Your task to perform on an android device: check google app version Image 0: 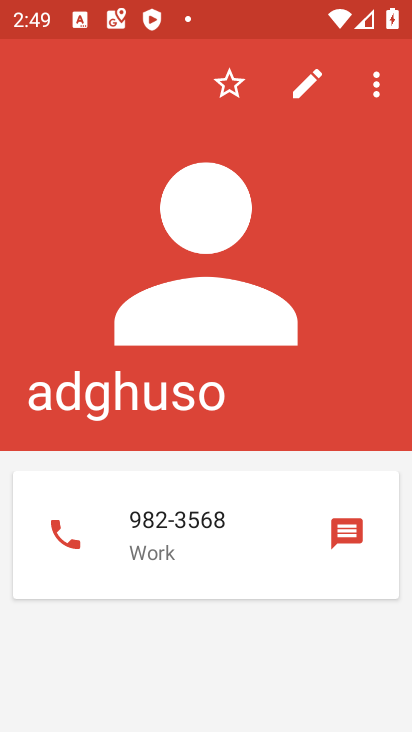
Step 0: press home button
Your task to perform on an android device: check google app version Image 1: 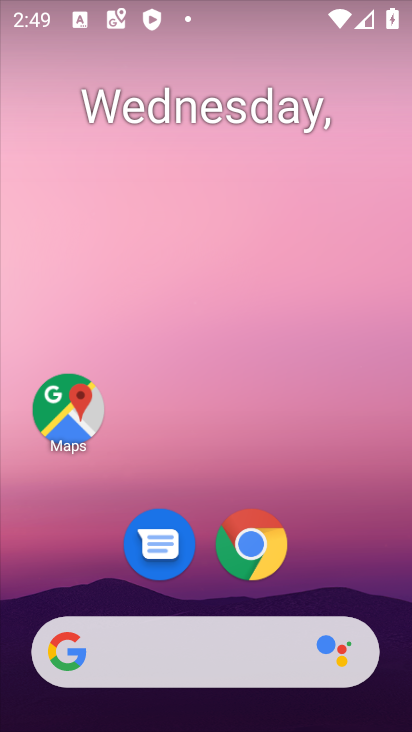
Step 1: click (252, 541)
Your task to perform on an android device: check google app version Image 2: 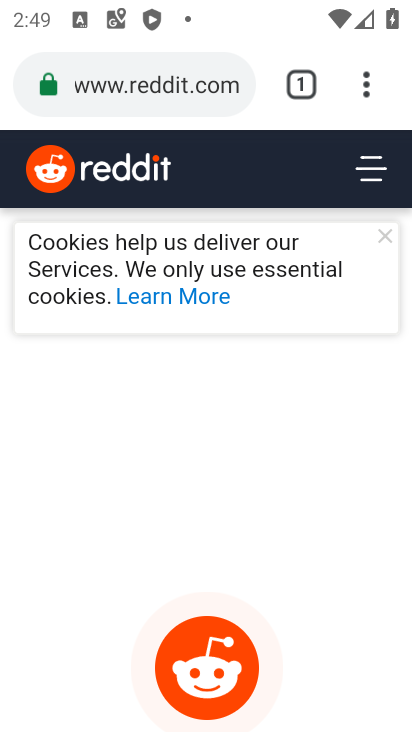
Step 2: drag from (186, 577) to (223, 409)
Your task to perform on an android device: check google app version Image 3: 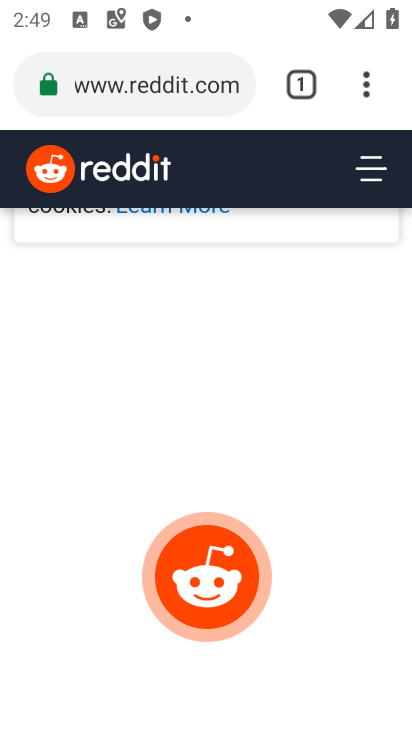
Step 3: click (368, 94)
Your task to perform on an android device: check google app version Image 4: 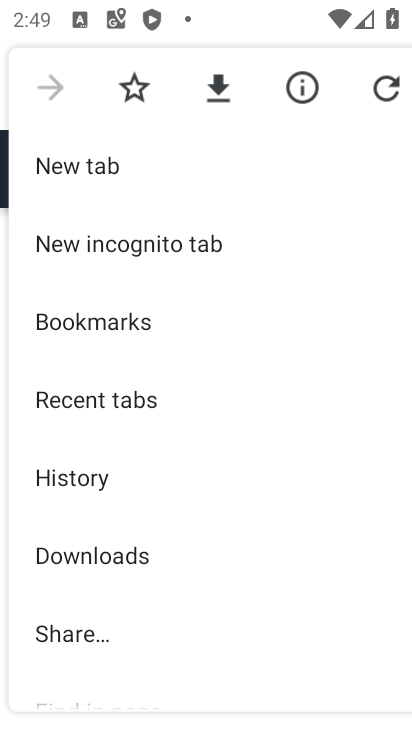
Step 4: drag from (204, 675) to (293, 233)
Your task to perform on an android device: check google app version Image 5: 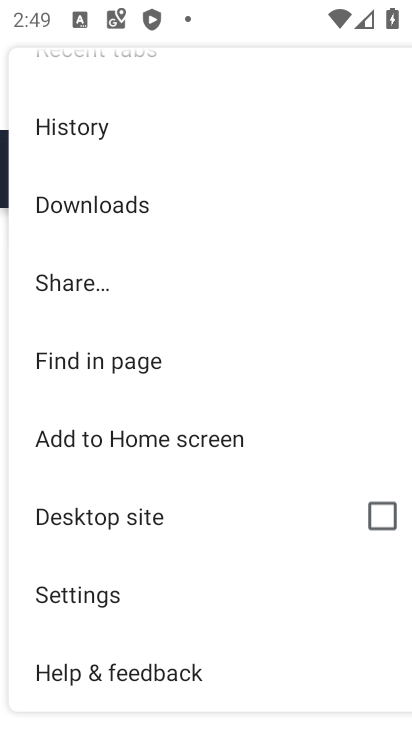
Step 5: click (74, 588)
Your task to perform on an android device: check google app version Image 6: 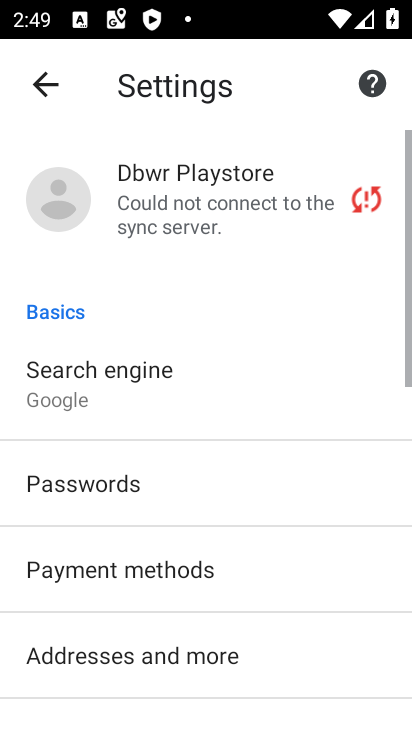
Step 6: drag from (301, 664) to (278, 203)
Your task to perform on an android device: check google app version Image 7: 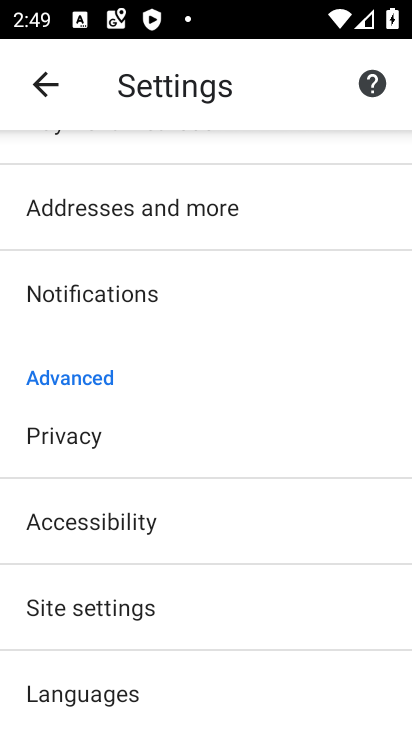
Step 7: drag from (246, 681) to (276, 223)
Your task to perform on an android device: check google app version Image 8: 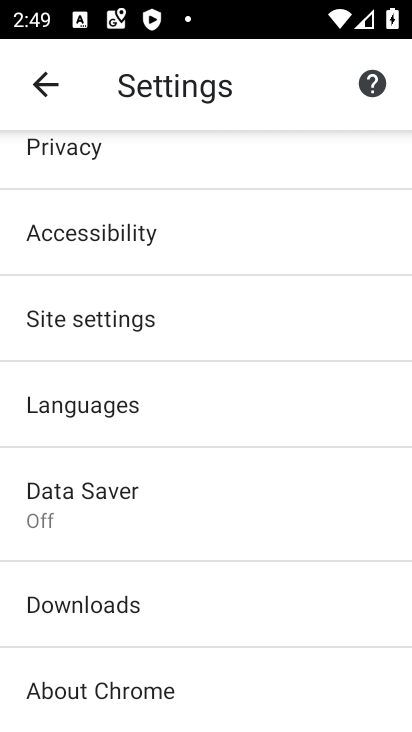
Step 8: click (108, 697)
Your task to perform on an android device: check google app version Image 9: 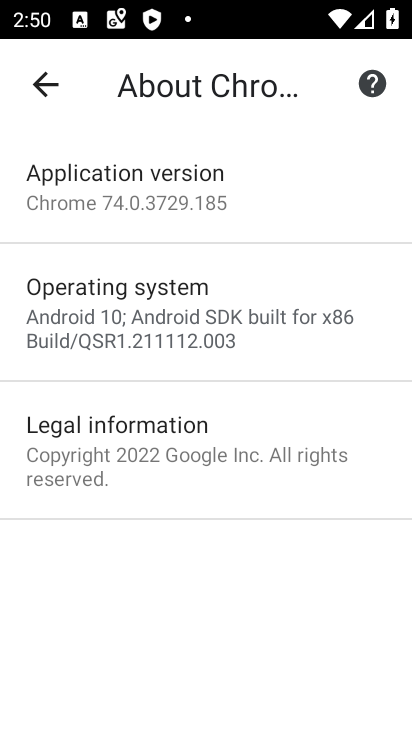
Step 9: task complete